Your task to perform on an android device: allow notifications from all sites in the chrome app Image 0: 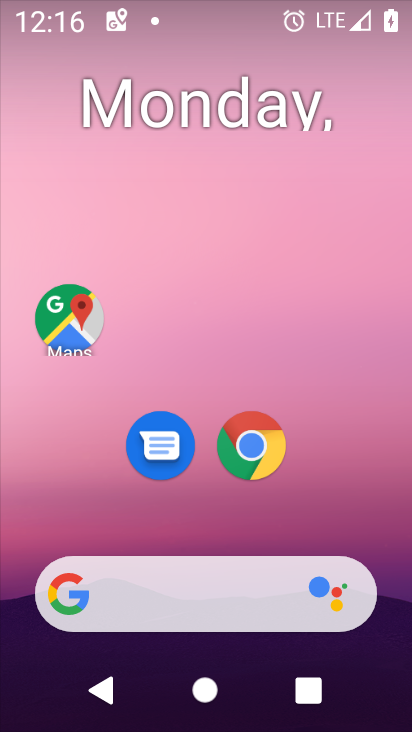
Step 0: drag from (210, 516) to (271, 111)
Your task to perform on an android device: allow notifications from all sites in the chrome app Image 1: 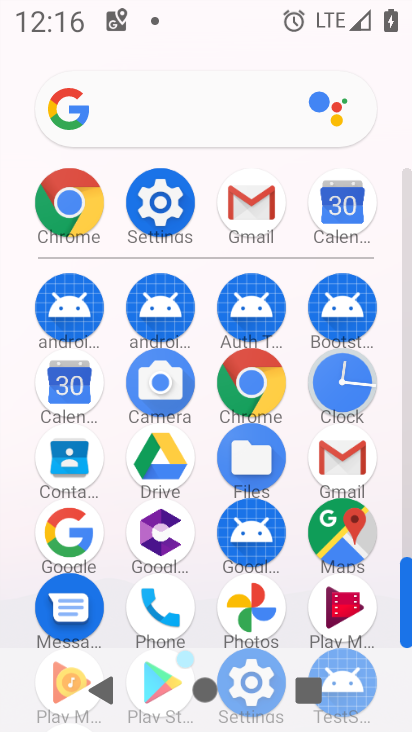
Step 1: click (247, 374)
Your task to perform on an android device: allow notifications from all sites in the chrome app Image 2: 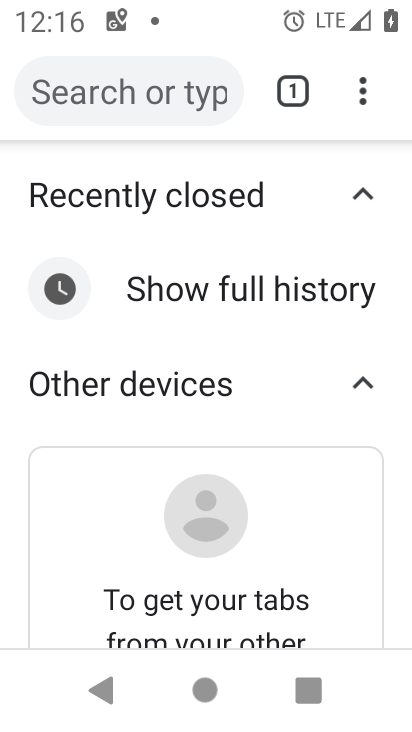
Step 2: drag from (366, 87) to (188, 463)
Your task to perform on an android device: allow notifications from all sites in the chrome app Image 3: 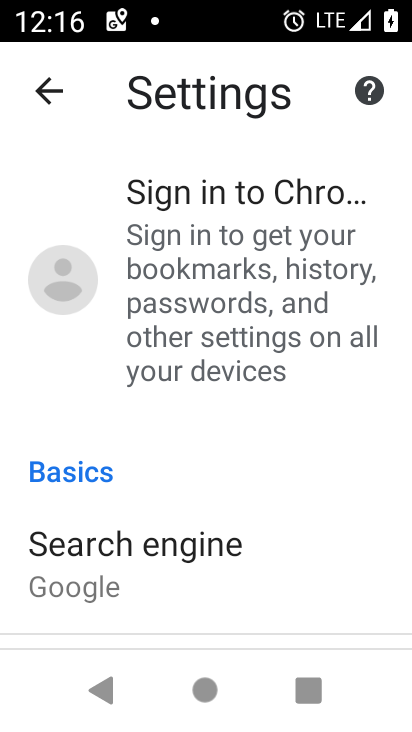
Step 3: drag from (243, 603) to (232, 178)
Your task to perform on an android device: allow notifications from all sites in the chrome app Image 4: 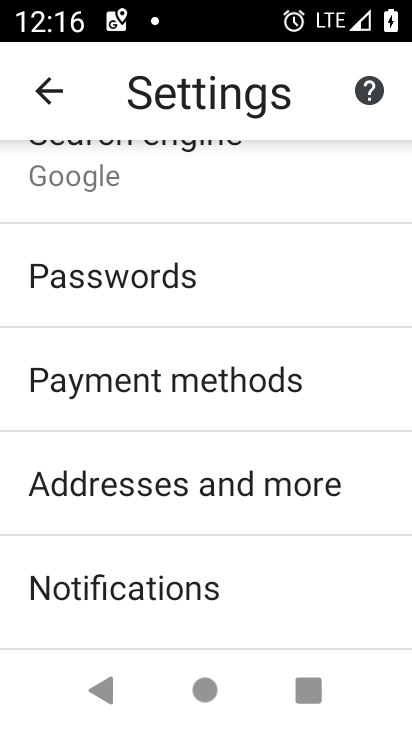
Step 4: drag from (223, 567) to (232, 214)
Your task to perform on an android device: allow notifications from all sites in the chrome app Image 5: 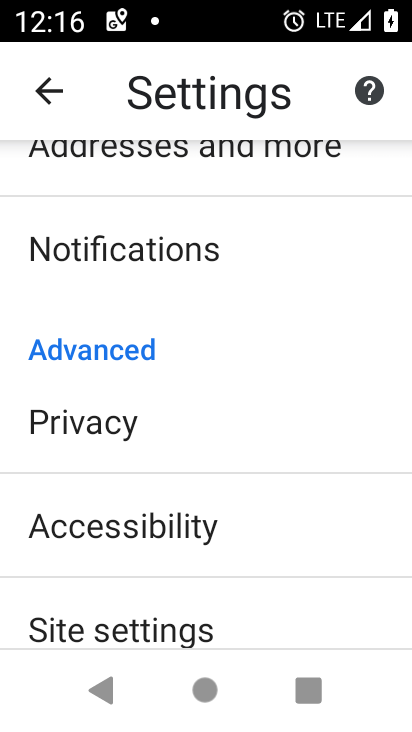
Step 5: drag from (199, 565) to (220, 240)
Your task to perform on an android device: allow notifications from all sites in the chrome app Image 6: 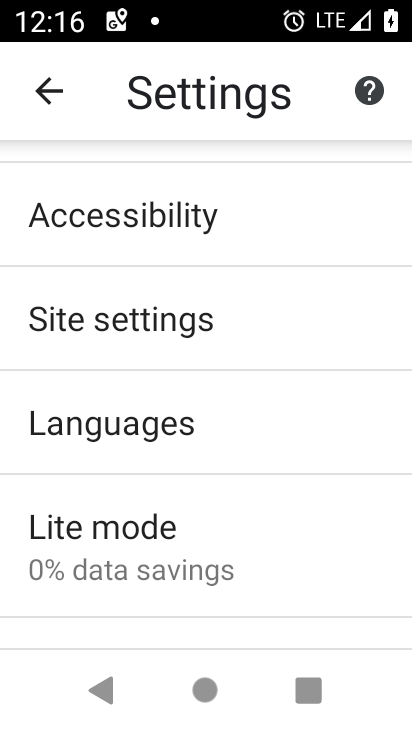
Step 6: click (161, 313)
Your task to perform on an android device: allow notifications from all sites in the chrome app Image 7: 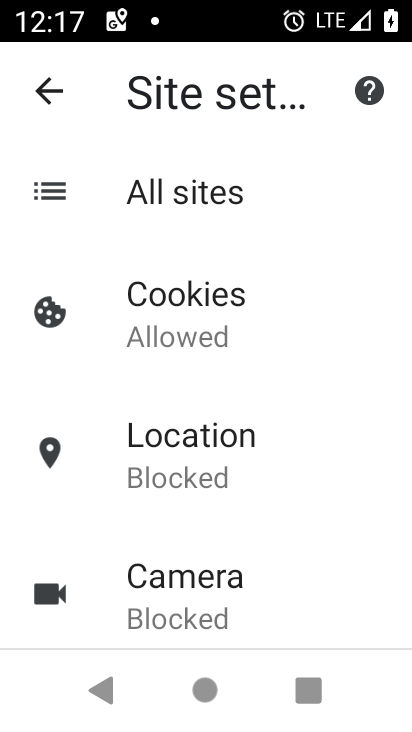
Step 7: drag from (231, 555) to (274, 202)
Your task to perform on an android device: allow notifications from all sites in the chrome app Image 8: 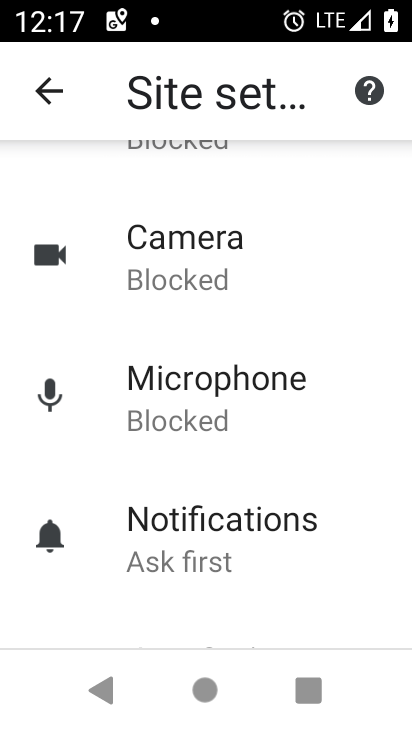
Step 8: click (226, 550)
Your task to perform on an android device: allow notifications from all sites in the chrome app Image 9: 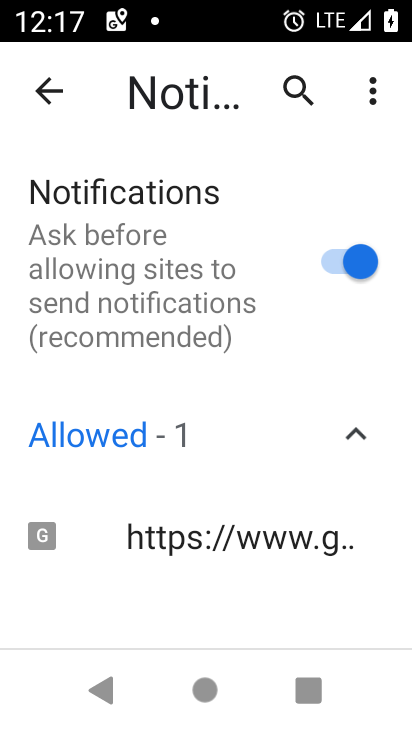
Step 9: task complete